Your task to perform on an android device: Turn on the flashlight Image 0: 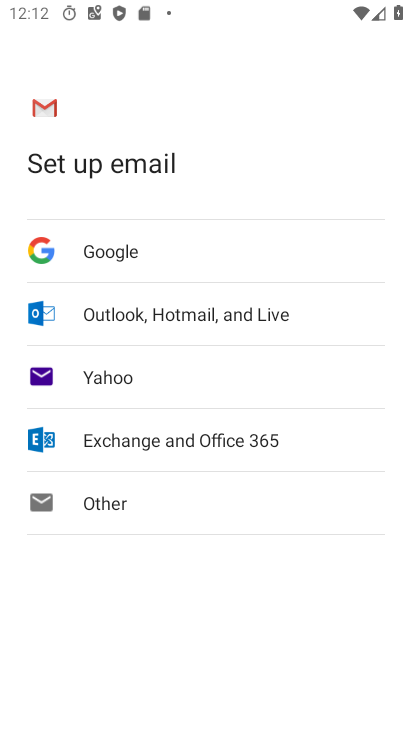
Step 0: press home button
Your task to perform on an android device: Turn on the flashlight Image 1: 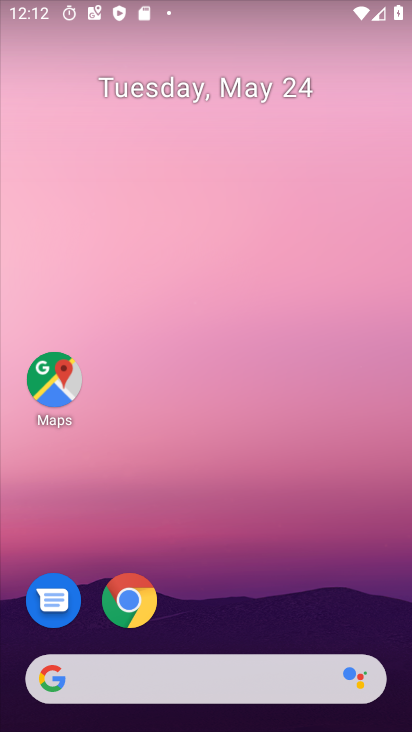
Step 1: drag from (233, 521) to (228, 138)
Your task to perform on an android device: Turn on the flashlight Image 2: 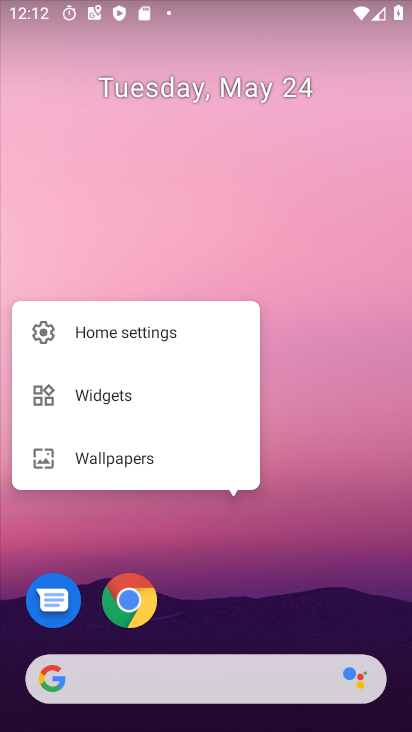
Step 2: click (362, 571)
Your task to perform on an android device: Turn on the flashlight Image 3: 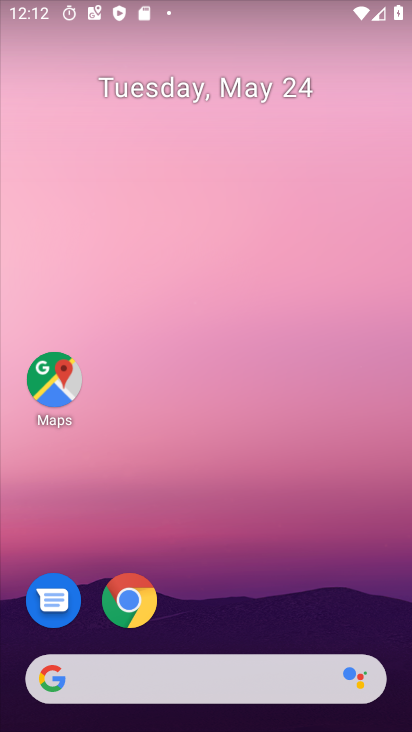
Step 3: drag from (348, 579) to (332, 108)
Your task to perform on an android device: Turn on the flashlight Image 4: 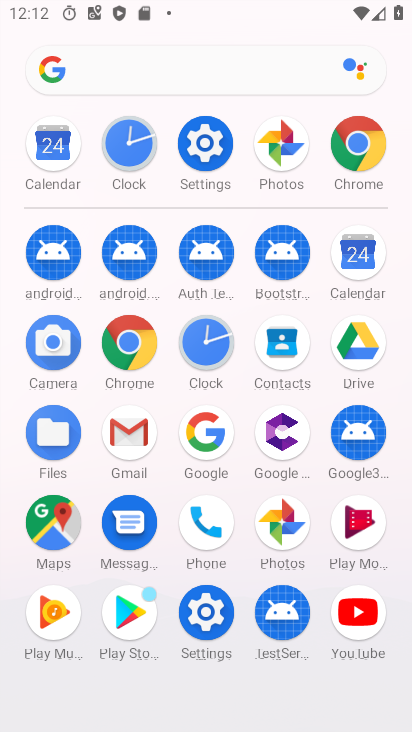
Step 4: click (204, 154)
Your task to perform on an android device: Turn on the flashlight Image 5: 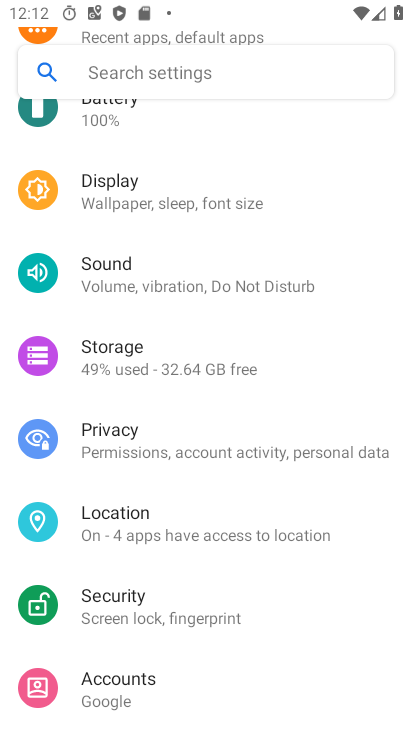
Step 5: drag from (201, 145) to (230, 689)
Your task to perform on an android device: Turn on the flashlight Image 6: 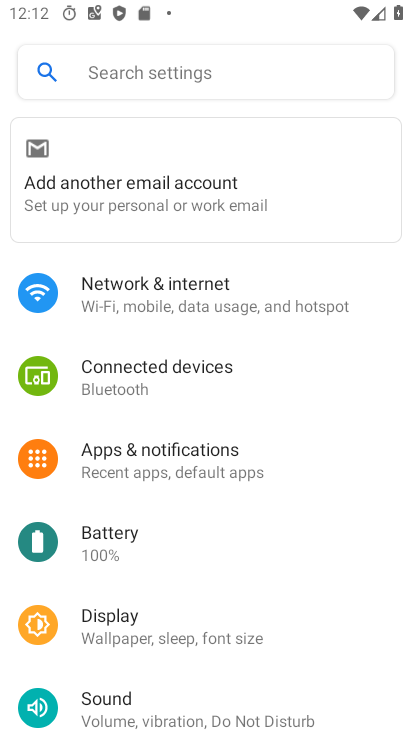
Step 6: click (166, 614)
Your task to perform on an android device: Turn on the flashlight Image 7: 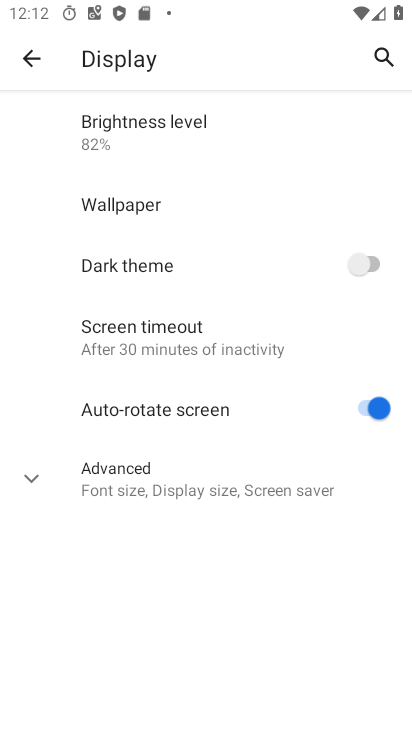
Step 7: task complete